Your task to perform on an android device: turn on data saver in the chrome app Image 0: 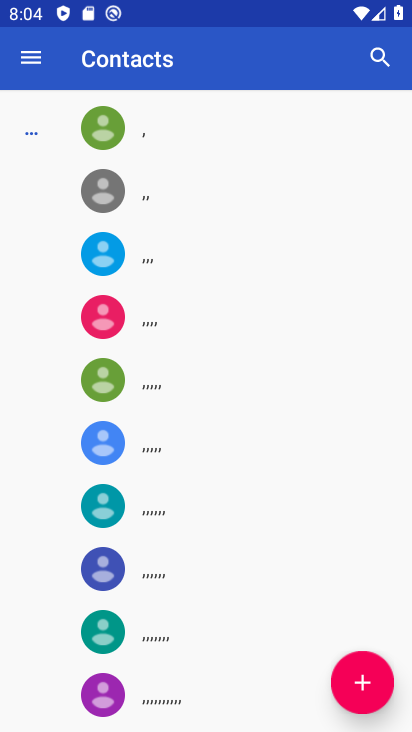
Step 0: press home button
Your task to perform on an android device: turn on data saver in the chrome app Image 1: 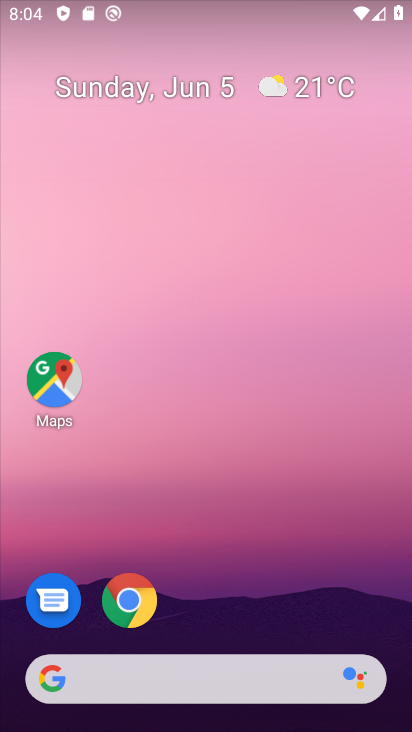
Step 1: click (136, 592)
Your task to perform on an android device: turn on data saver in the chrome app Image 2: 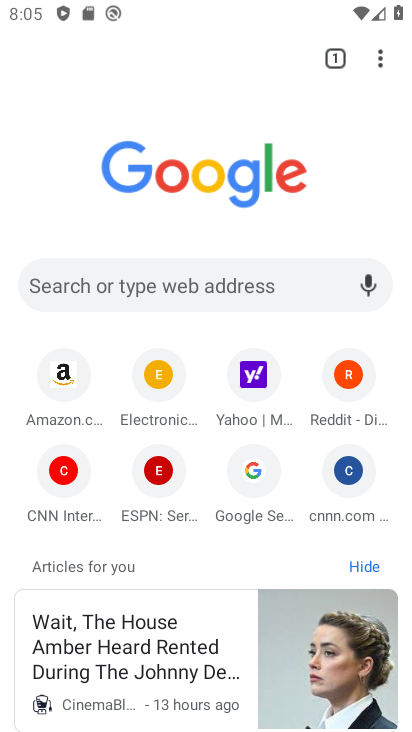
Step 2: click (374, 64)
Your task to perform on an android device: turn on data saver in the chrome app Image 3: 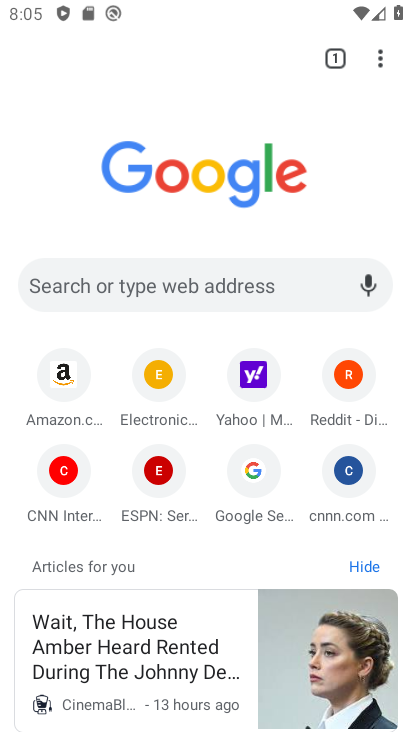
Step 3: click (378, 68)
Your task to perform on an android device: turn on data saver in the chrome app Image 4: 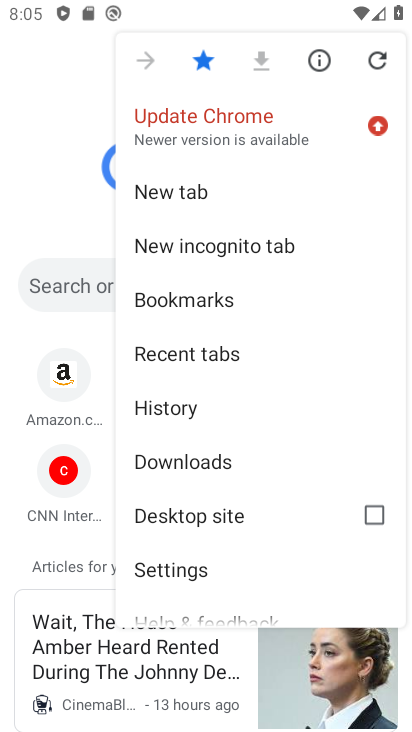
Step 4: click (223, 574)
Your task to perform on an android device: turn on data saver in the chrome app Image 5: 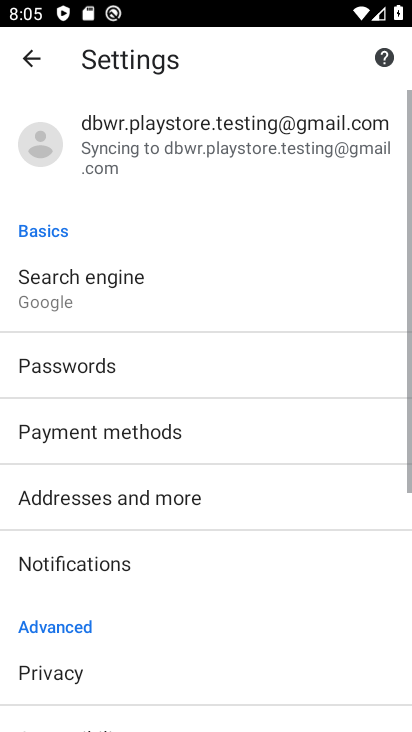
Step 5: drag from (155, 669) to (176, 154)
Your task to perform on an android device: turn on data saver in the chrome app Image 6: 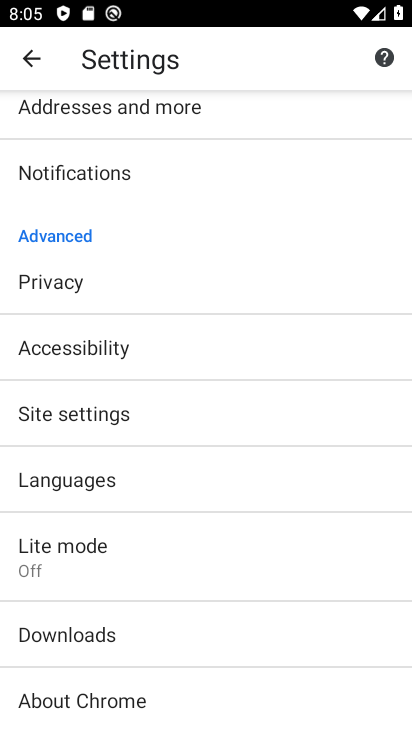
Step 6: click (131, 542)
Your task to perform on an android device: turn on data saver in the chrome app Image 7: 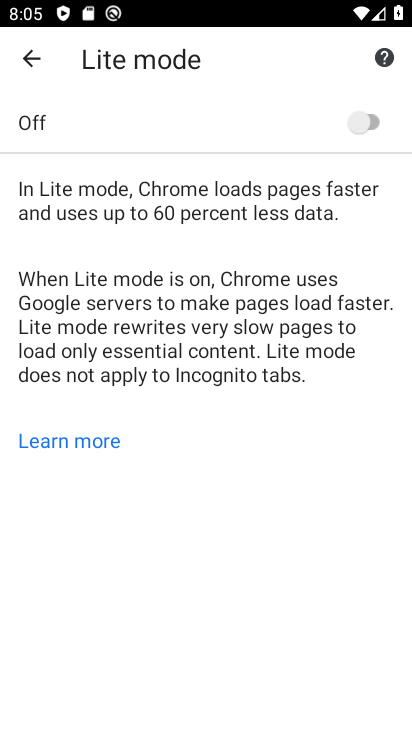
Step 7: click (357, 115)
Your task to perform on an android device: turn on data saver in the chrome app Image 8: 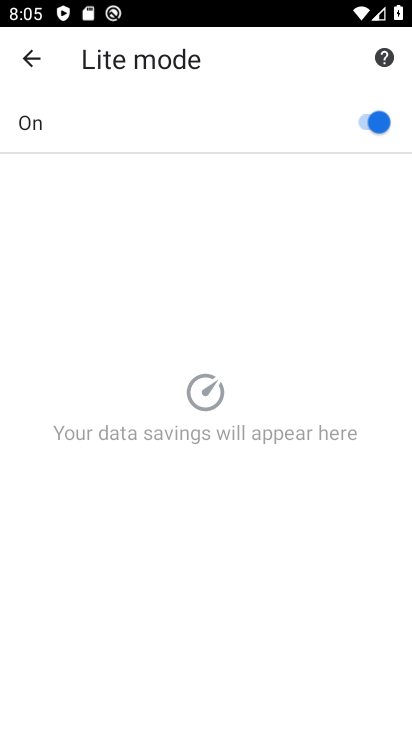
Step 8: task complete